Your task to perform on an android device: Clear the cart on target.com. Image 0: 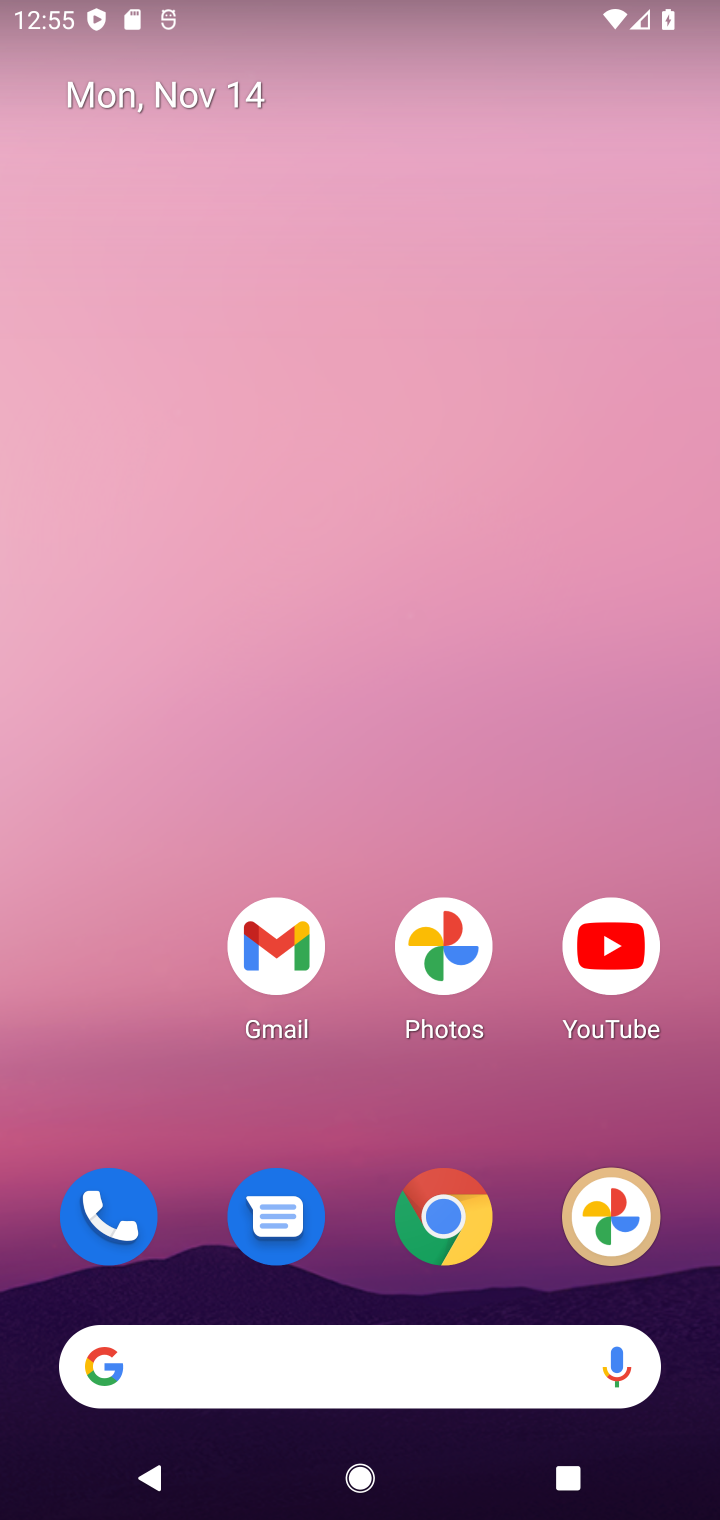
Step 0: click (432, 1227)
Your task to perform on an android device: Clear the cart on target.com. Image 1: 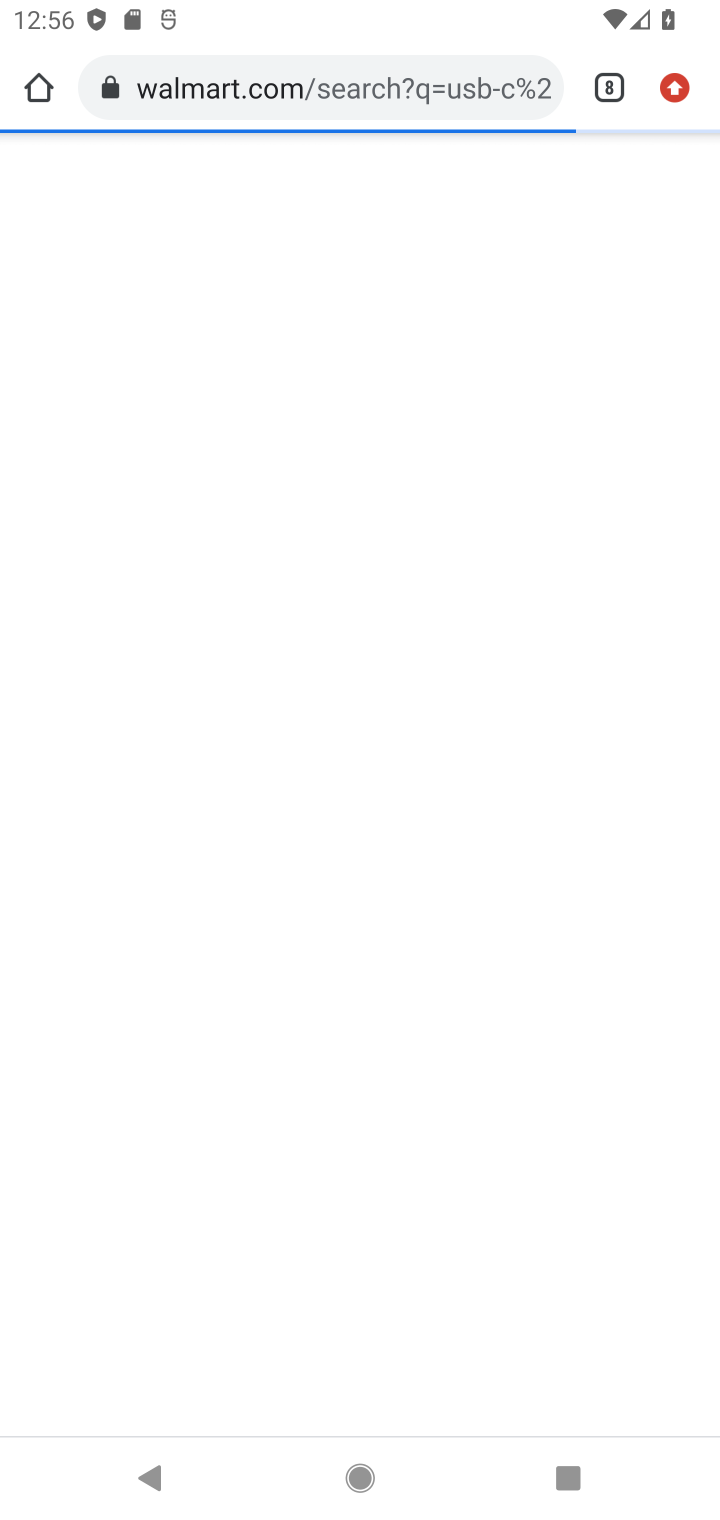
Step 1: click (599, 80)
Your task to perform on an android device: Clear the cart on target.com. Image 2: 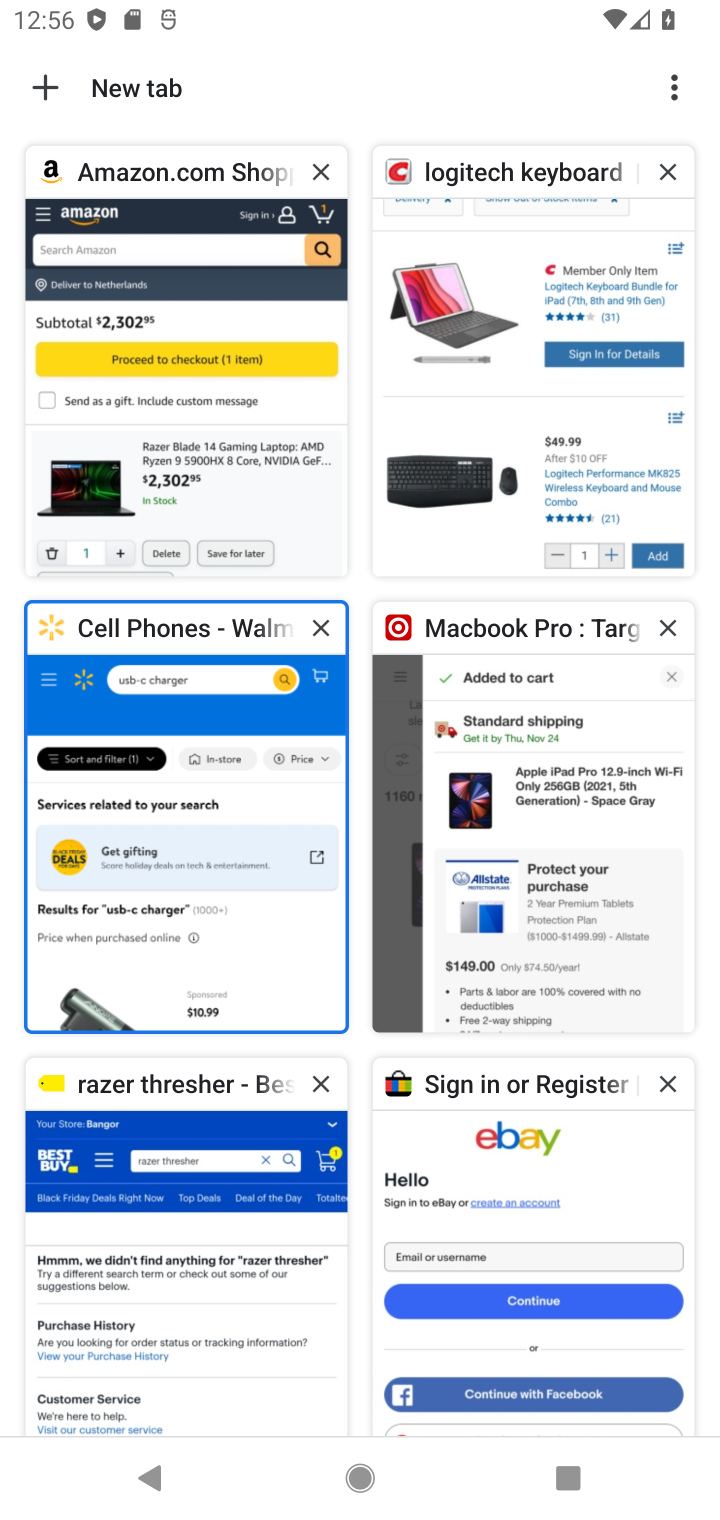
Step 2: click (528, 765)
Your task to perform on an android device: Clear the cart on target.com. Image 3: 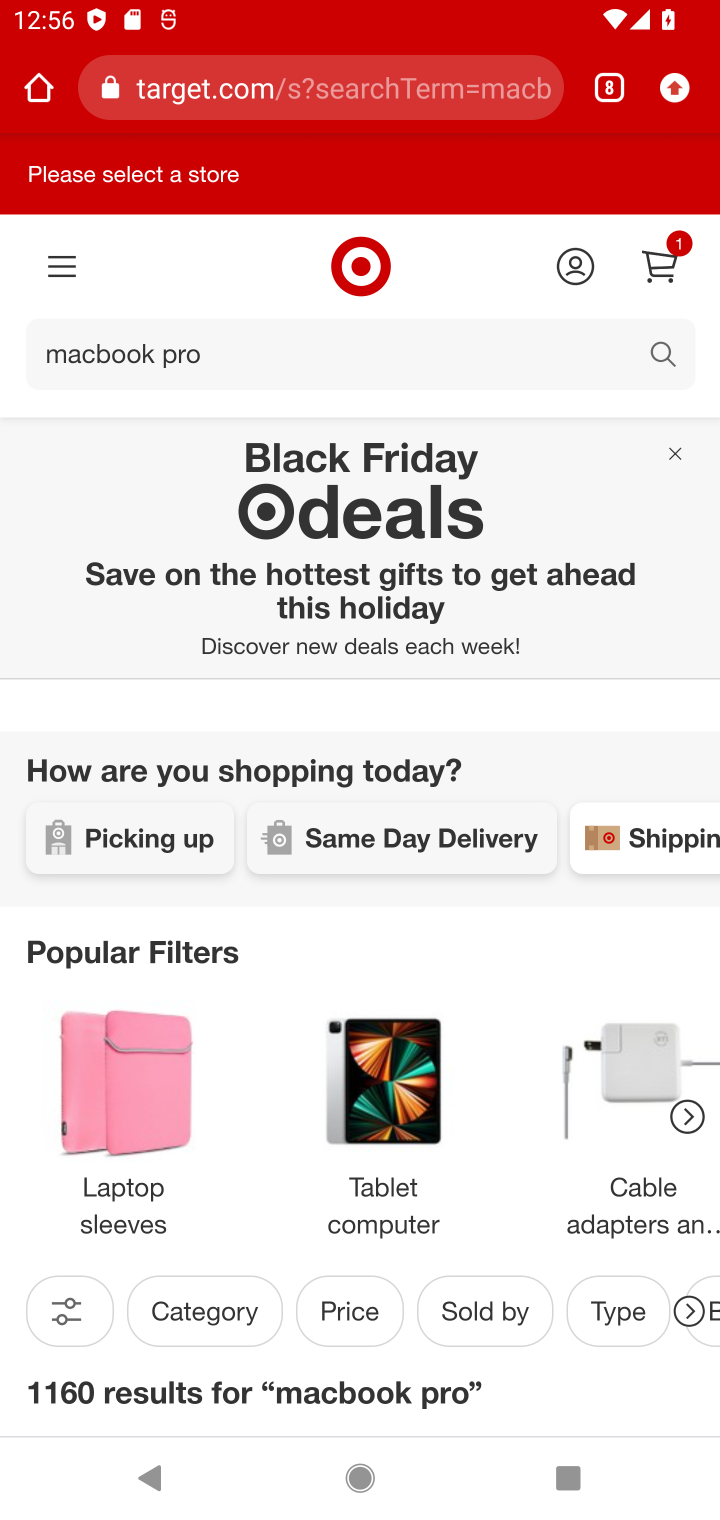
Step 3: click (663, 270)
Your task to perform on an android device: Clear the cart on target.com. Image 4: 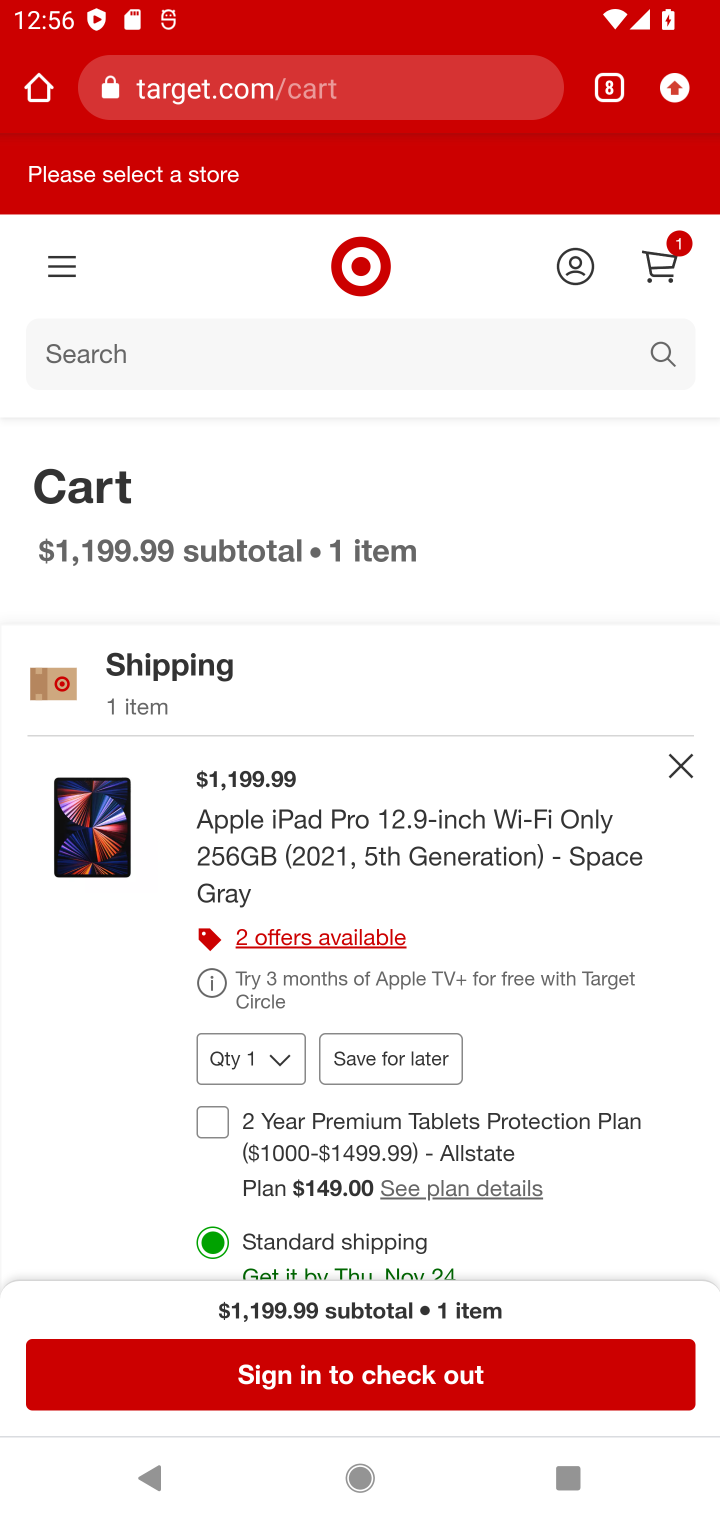
Step 4: click (674, 771)
Your task to perform on an android device: Clear the cart on target.com. Image 5: 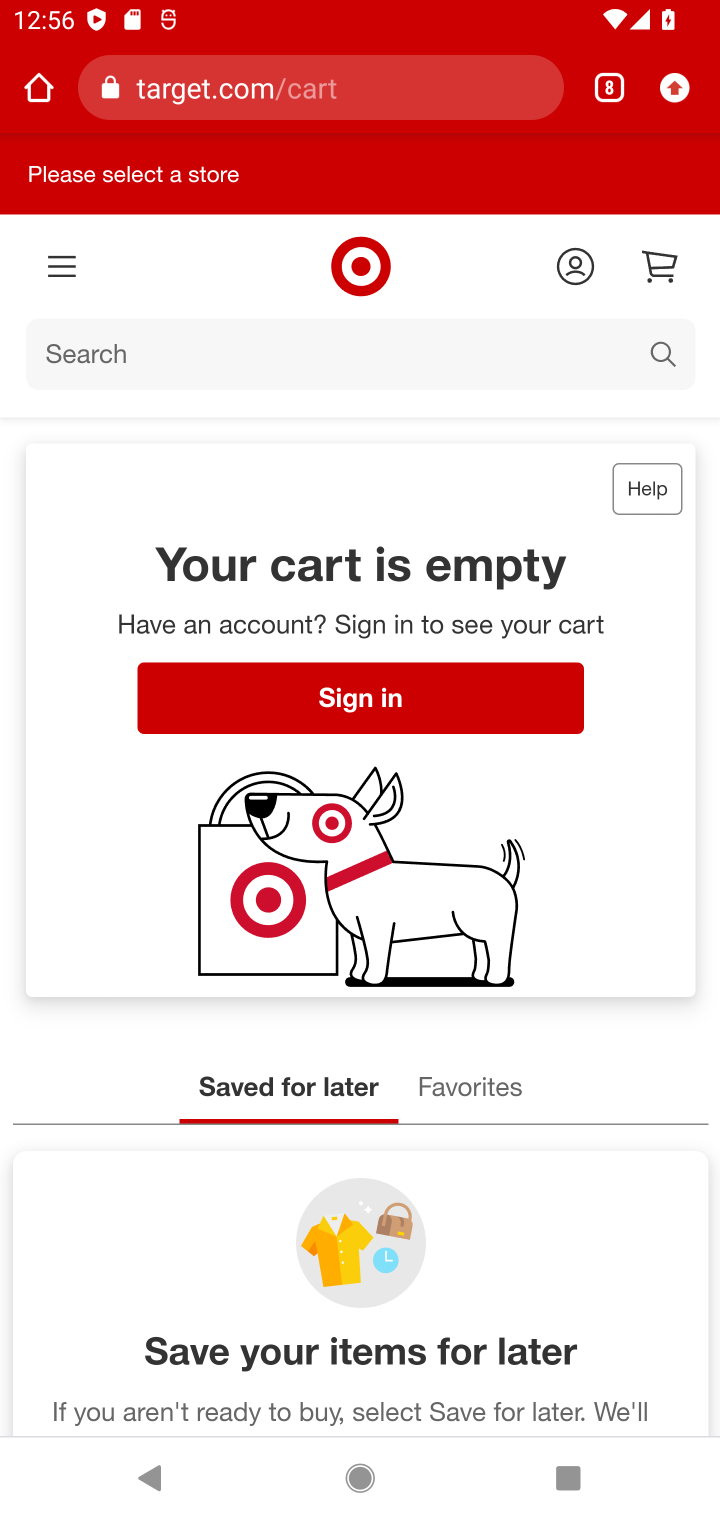
Step 5: task complete